Your task to perform on an android device: Open Google Maps Image 0: 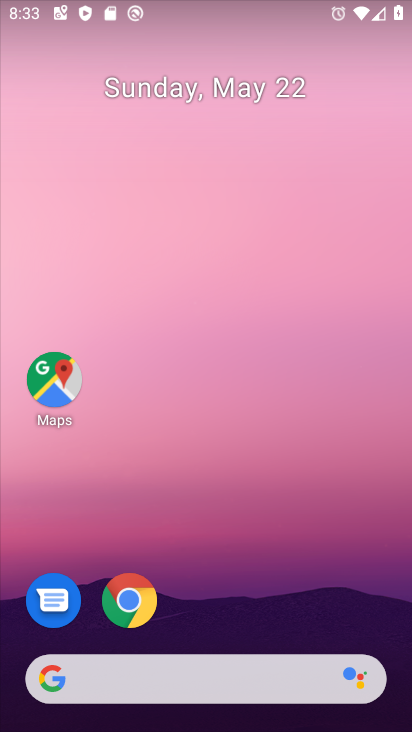
Step 0: drag from (247, 645) to (232, 222)
Your task to perform on an android device: Open Google Maps Image 1: 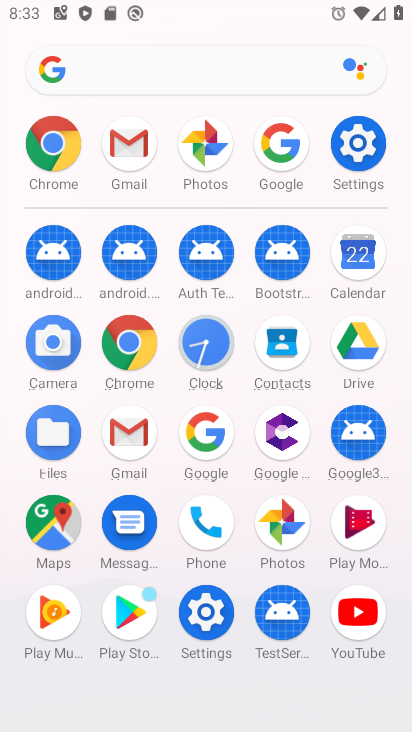
Step 1: click (59, 523)
Your task to perform on an android device: Open Google Maps Image 2: 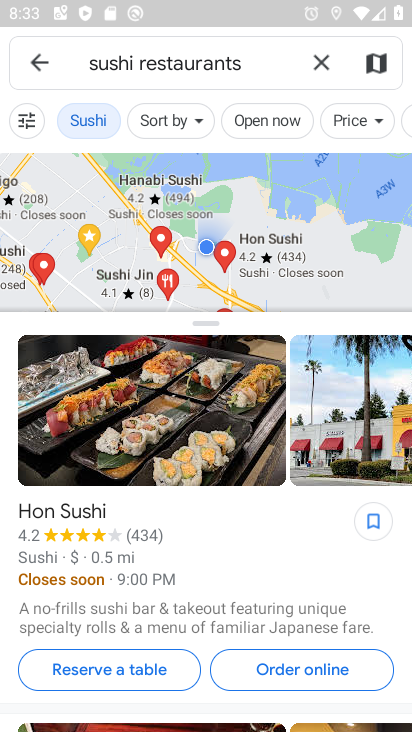
Step 2: task complete